Your task to perform on an android device: delete the emails in spam in the gmail app Image 0: 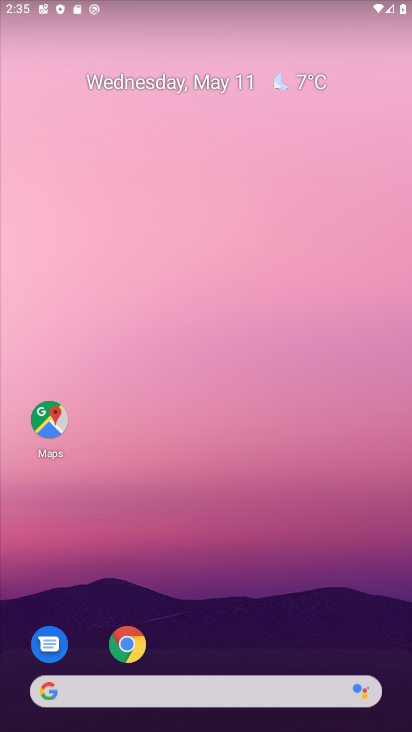
Step 0: drag from (196, 653) to (195, 113)
Your task to perform on an android device: delete the emails in spam in the gmail app Image 1: 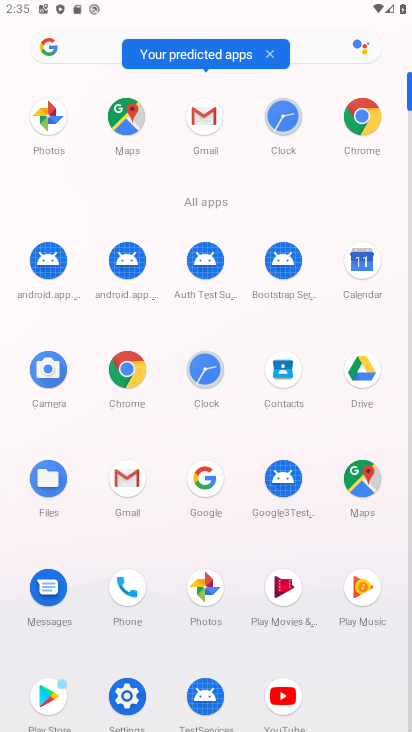
Step 1: click (202, 116)
Your task to perform on an android device: delete the emails in spam in the gmail app Image 2: 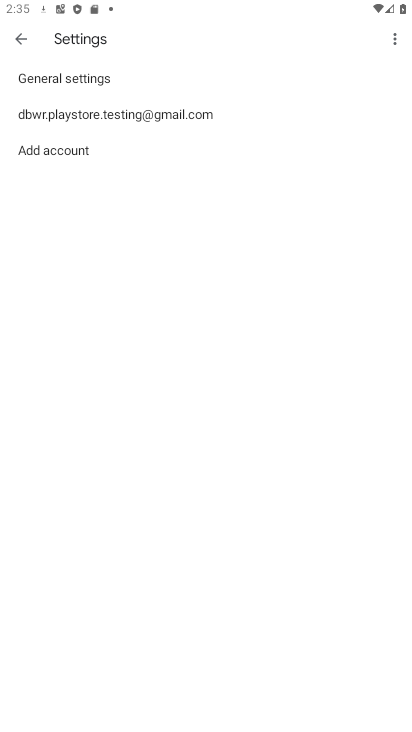
Step 2: click (21, 41)
Your task to perform on an android device: delete the emails in spam in the gmail app Image 3: 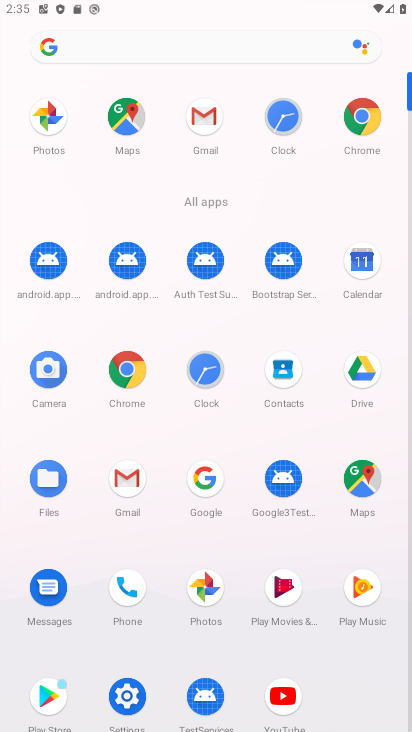
Step 3: click (210, 123)
Your task to perform on an android device: delete the emails in spam in the gmail app Image 4: 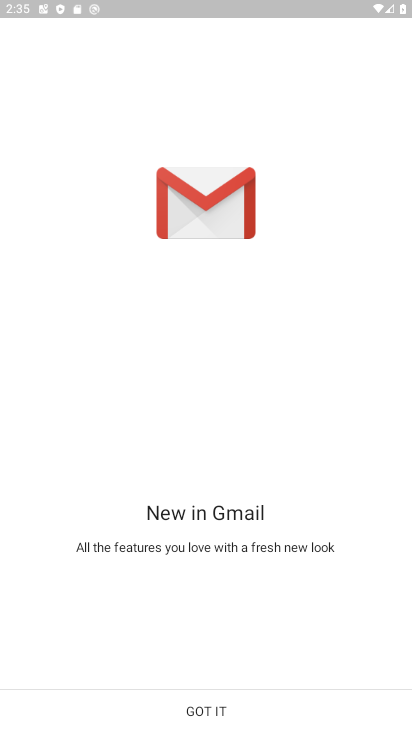
Step 4: click (196, 715)
Your task to perform on an android device: delete the emails in spam in the gmail app Image 5: 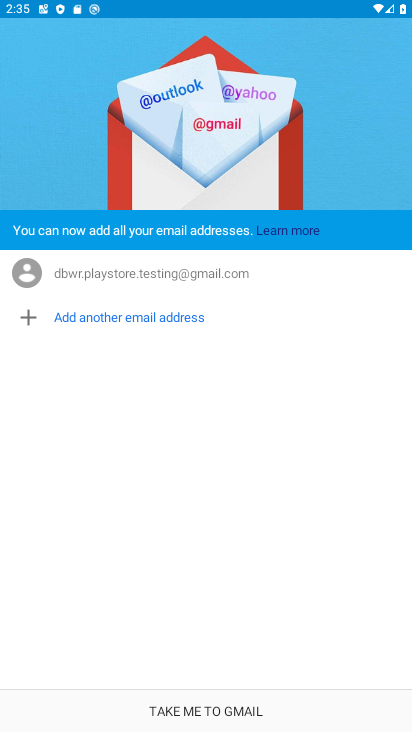
Step 5: click (196, 715)
Your task to perform on an android device: delete the emails in spam in the gmail app Image 6: 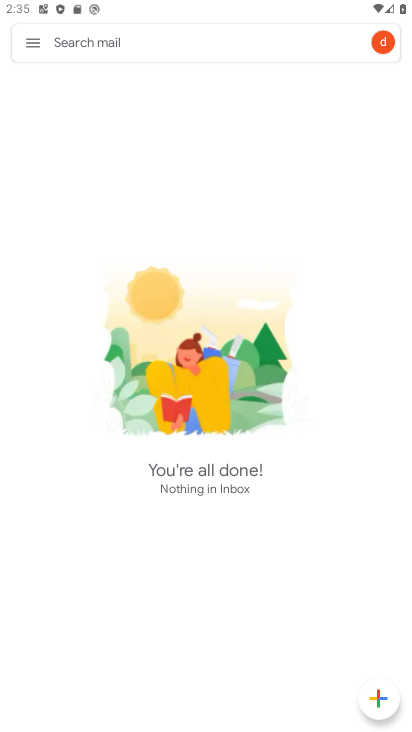
Step 6: task complete